Your task to perform on an android device: What's the weather going to be tomorrow? Image 0: 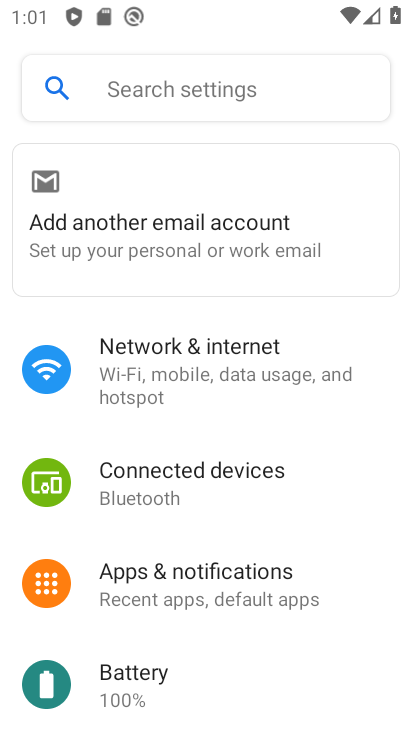
Step 0: press home button
Your task to perform on an android device: What's the weather going to be tomorrow? Image 1: 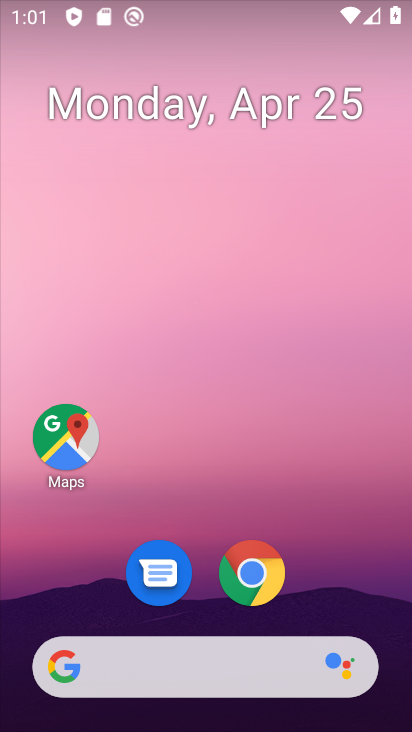
Step 1: click (184, 659)
Your task to perform on an android device: What's the weather going to be tomorrow? Image 2: 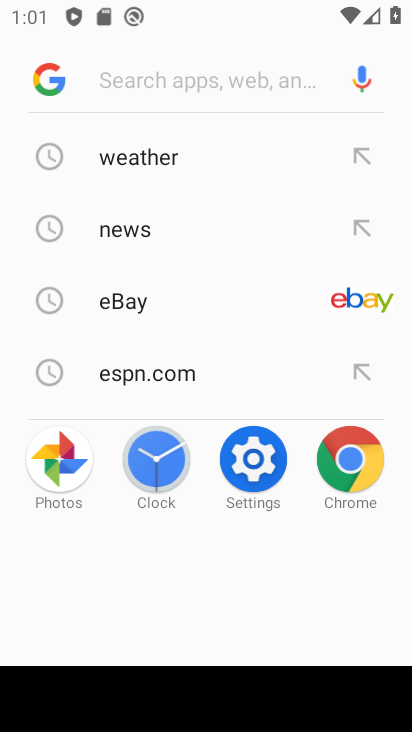
Step 2: type "What's the weather going to be tomorrow?"
Your task to perform on an android device: What's the weather going to be tomorrow? Image 3: 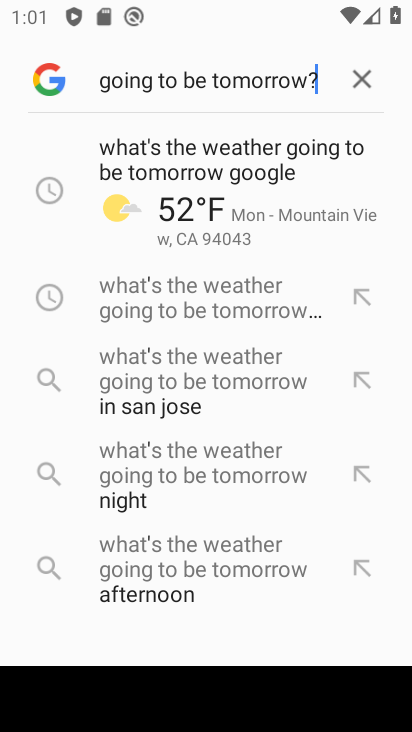
Step 3: click (238, 154)
Your task to perform on an android device: What's the weather going to be tomorrow? Image 4: 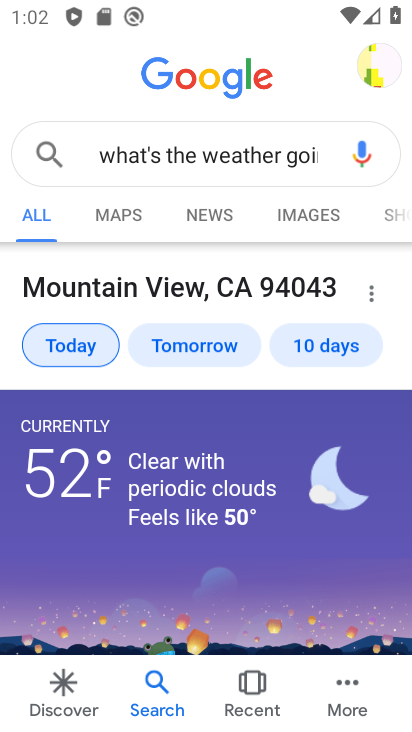
Step 4: task complete